Your task to perform on an android device: open sync settings in chrome Image 0: 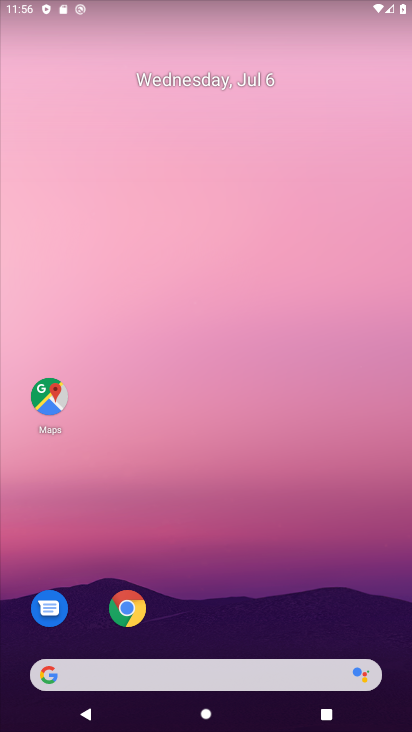
Step 0: click (225, 28)
Your task to perform on an android device: open sync settings in chrome Image 1: 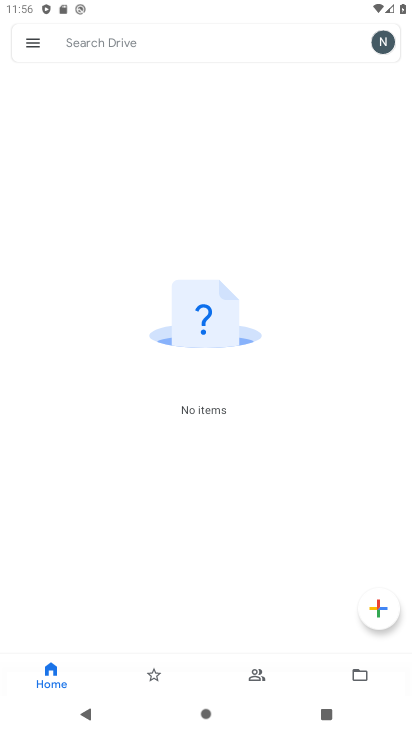
Step 1: press home button
Your task to perform on an android device: open sync settings in chrome Image 2: 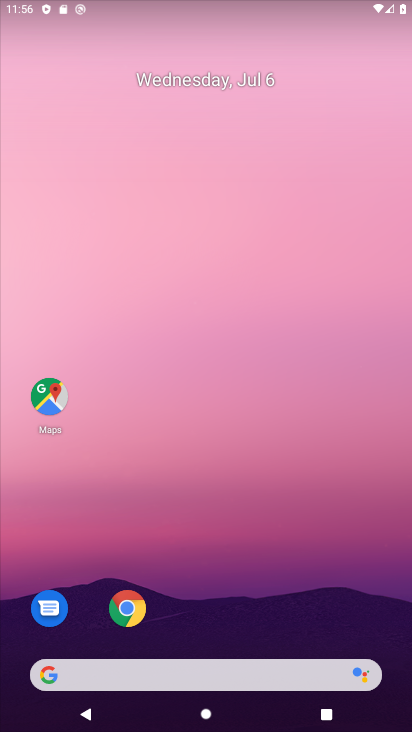
Step 2: drag from (262, 682) to (291, 19)
Your task to perform on an android device: open sync settings in chrome Image 3: 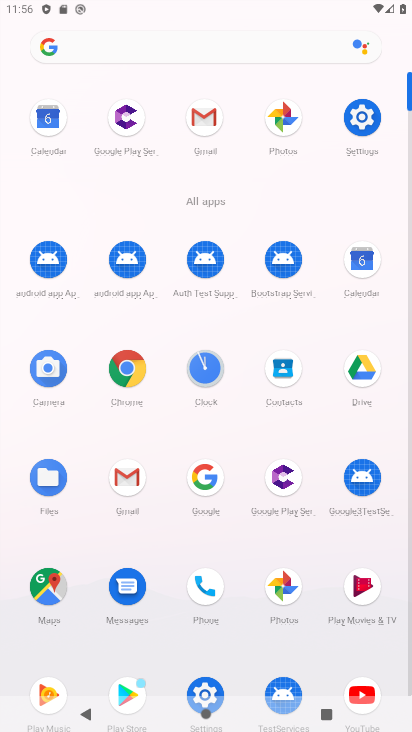
Step 3: click (120, 380)
Your task to perform on an android device: open sync settings in chrome Image 4: 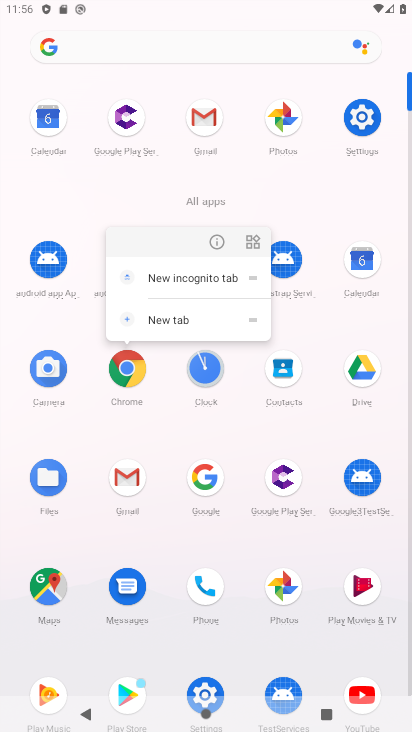
Step 4: click (118, 375)
Your task to perform on an android device: open sync settings in chrome Image 5: 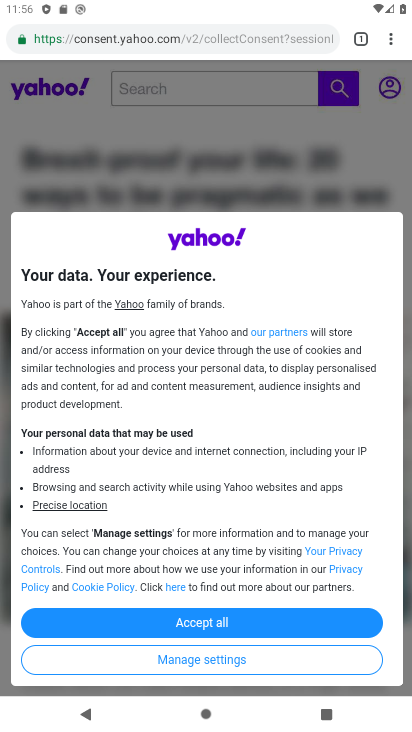
Step 5: click (378, 33)
Your task to perform on an android device: open sync settings in chrome Image 6: 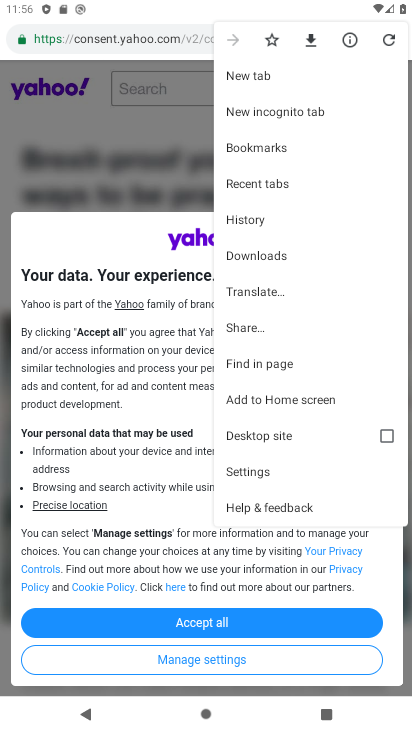
Step 6: click (257, 470)
Your task to perform on an android device: open sync settings in chrome Image 7: 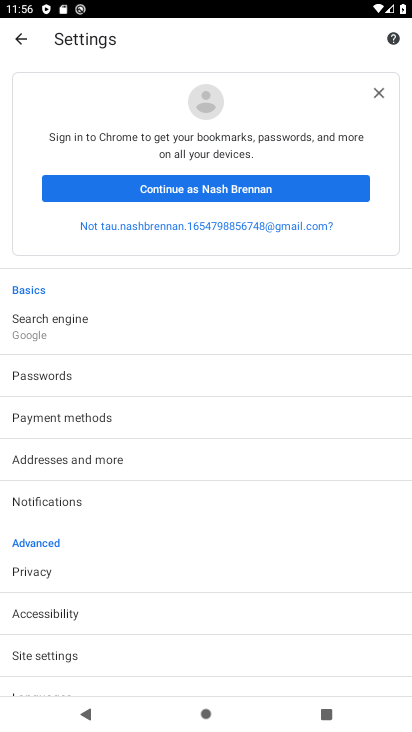
Step 7: drag from (135, 636) to (194, 335)
Your task to perform on an android device: open sync settings in chrome Image 8: 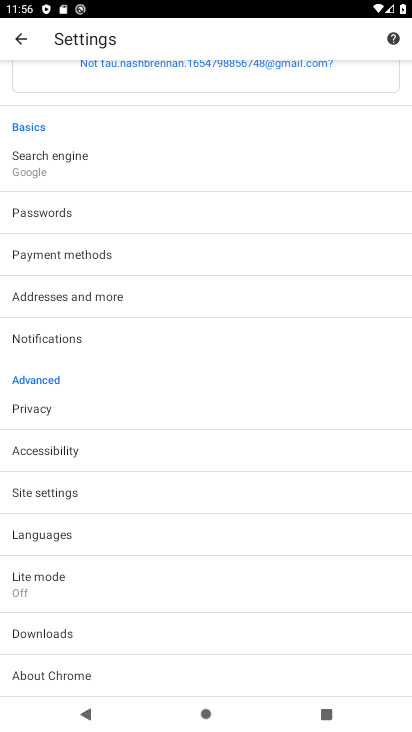
Step 8: click (114, 508)
Your task to perform on an android device: open sync settings in chrome Image 9: 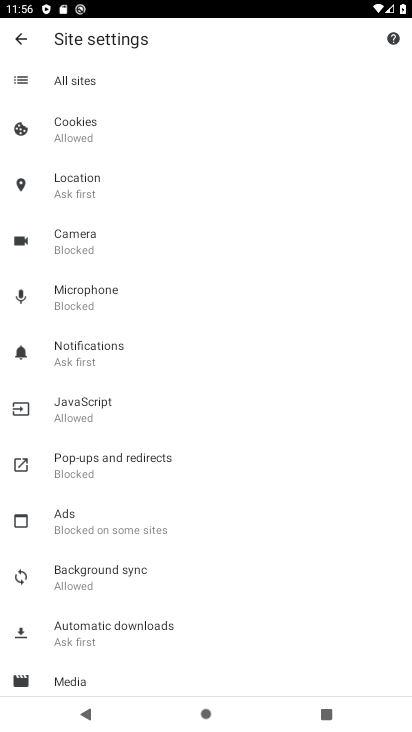
Step 9: click (136, 562)
Your task to perform on an android device: open sync settings in chrome Image 10: 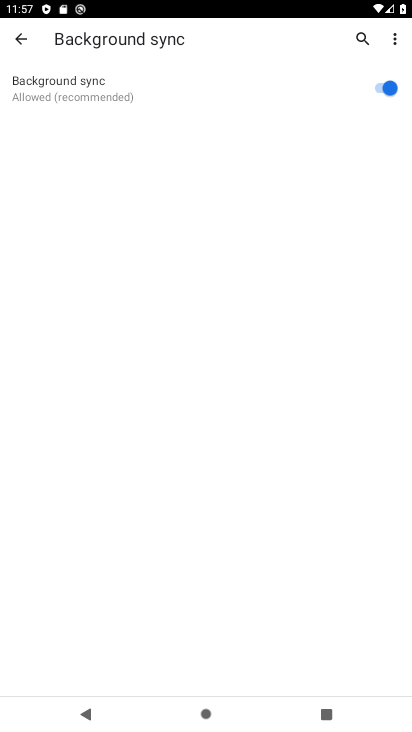
Step 10: task complete